Your task to perform on an android device: toggle sleep mode Image 0: 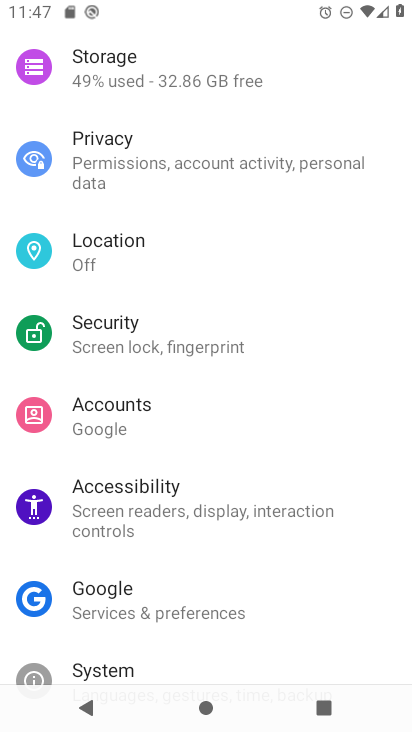
Step 0: press home button
Your task to perform on an android device: toggle sleep mode Image 1: 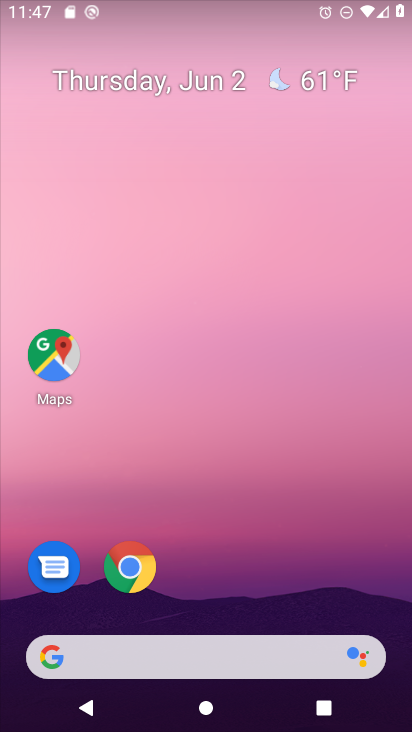
Step 1: drag from (262, 438) to (256, 115)
Your task to perform on an android device: toggle sleep mode Image 2: 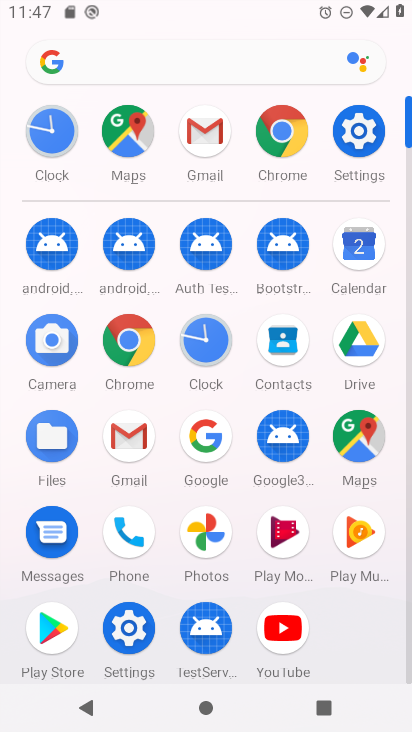
Step 2: click (356, 128)
Your task to perform on an android device: toggle sleep mode Image 3: 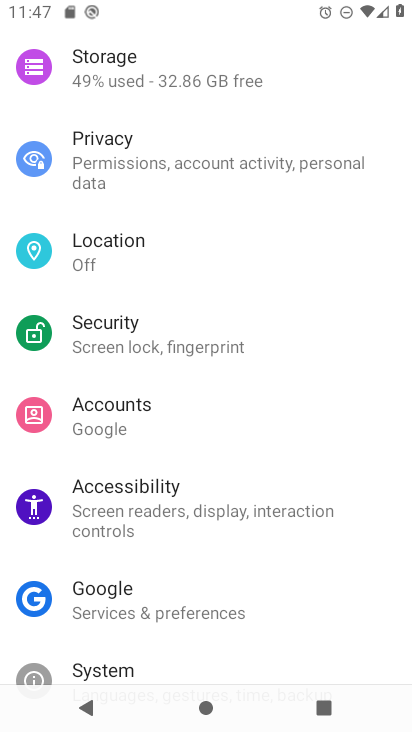
Step 3: drag from (209, 138) to (149, 539)
Your task to perform on an android device: toggle sleep mode Image 4: 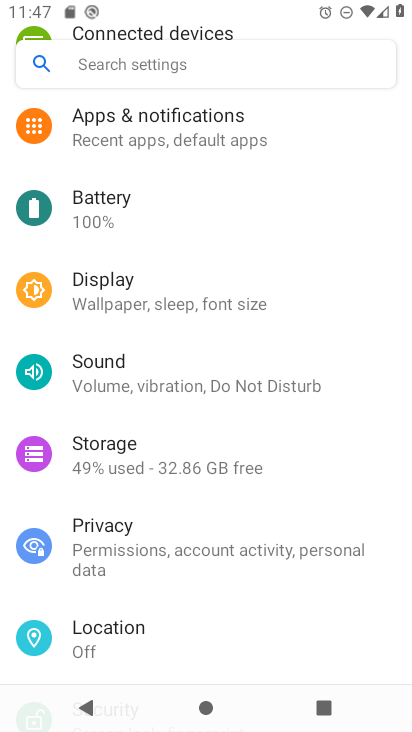
Step 4: drag from (234, 201) to (186, 546)
Your task to perform on an android device: toggle sleep mode Image 5: 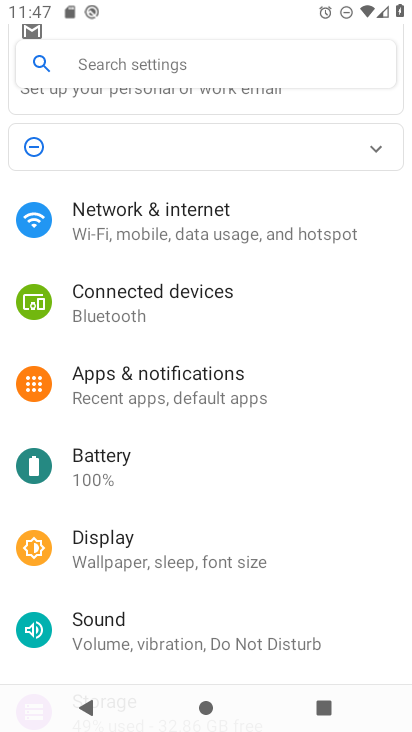
Step 5: click (135, 558)
Your task to perform on an android device: toggle sleep mode Image 6: 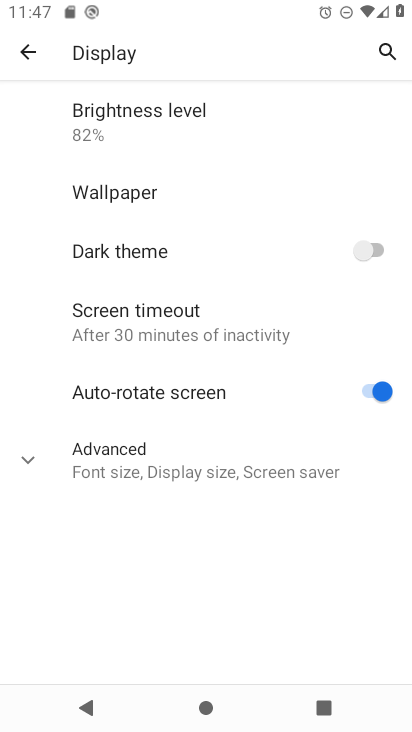
Step 6: click (122, 311)
Your task to perform on an android device: toggle sleep mode Image 7: 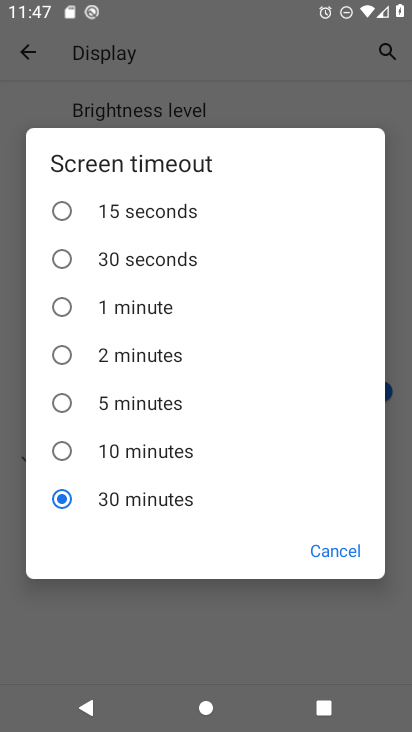
Step 7: click (120, 458)
Your task to perform on an android device: toggle sleep mode Image 8: 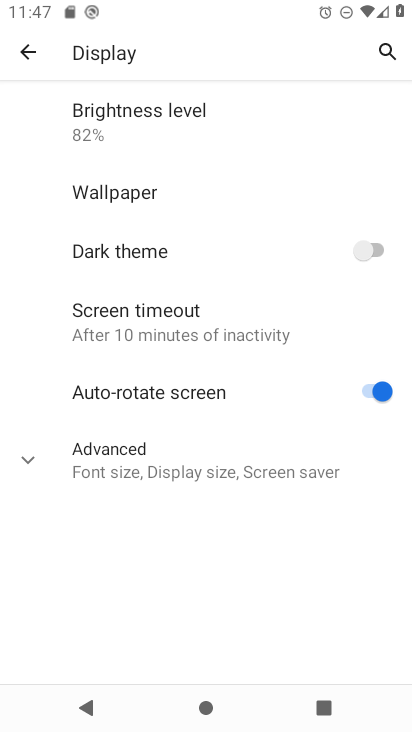
Step 8: task complete